Your task to perform on an android device: turn off sleep mode Image 0: 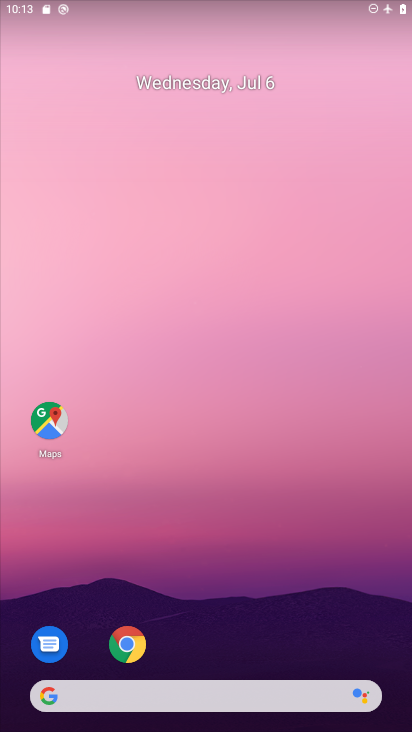
Step 0: drag from (230, 637) to (185, 53)
Your task to perform on an android device: turn off sleep mode Image 1: 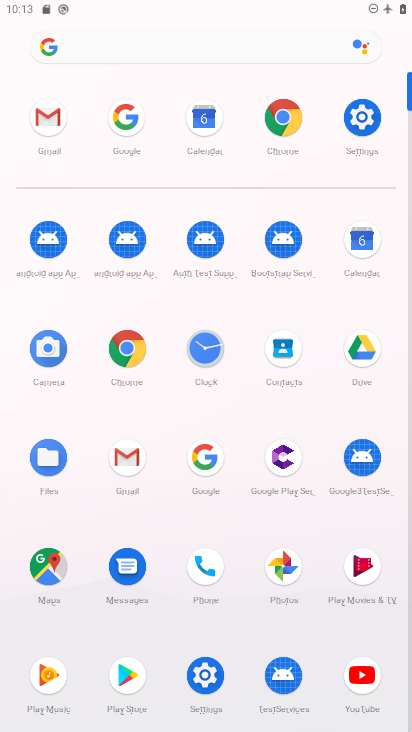
Step 1: click (368, 125)
Your task to perform on an android device: turn off sleep mode Image 2: 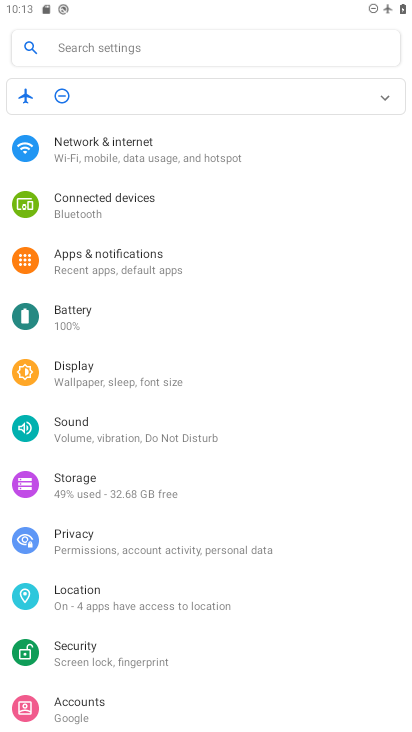
Step 2: click (101, 367)
Your task to perform on an android device: turn off sleep mode Image 3: 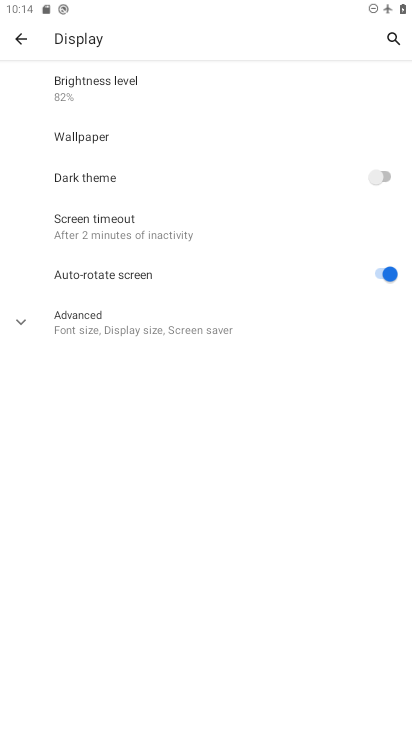
Step 3: click (154, 223)
Your task to perform on an android device: turn off sleep mode Image 4: 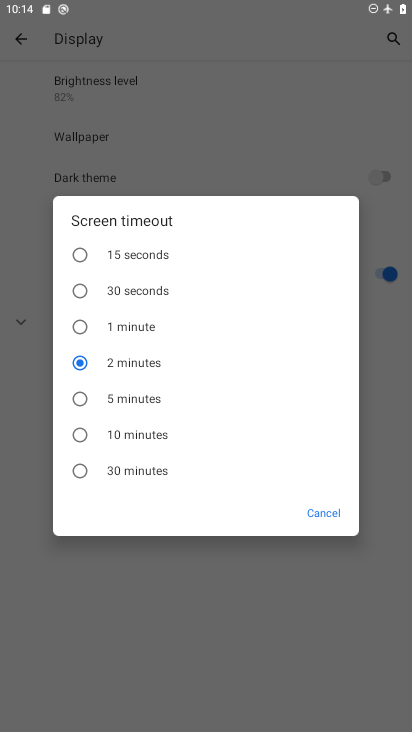
Step 4: click (146, 287)
Your task to perform on an android device: turn off sleep mode Image 5: 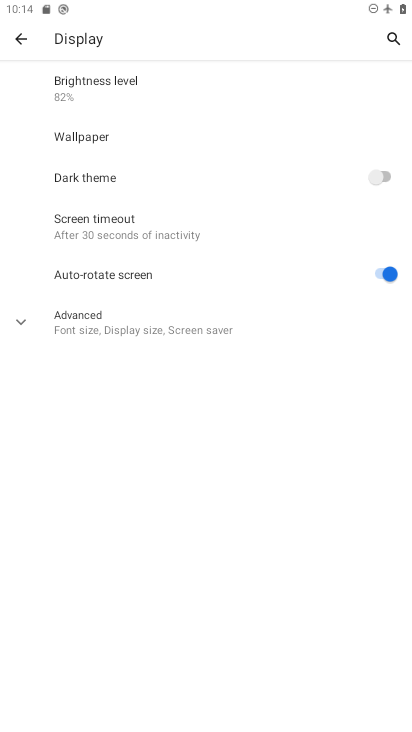
Step 5: task complete